Your task to perform on an android device: Go to Maps Image 0: 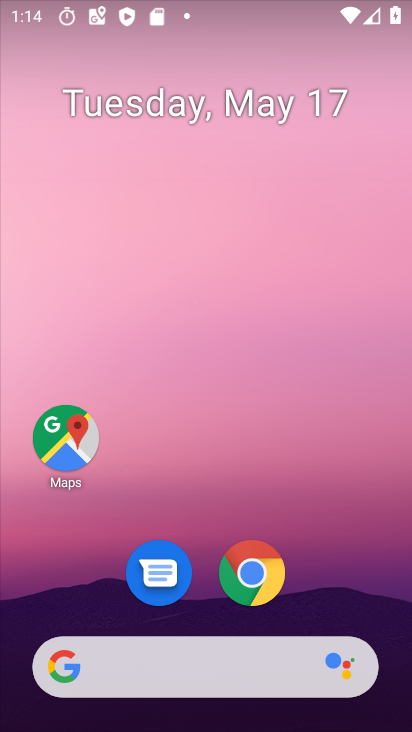
Step 0: click (41, 445)
Your task to perform on an android device: Go to Maps Image 1: 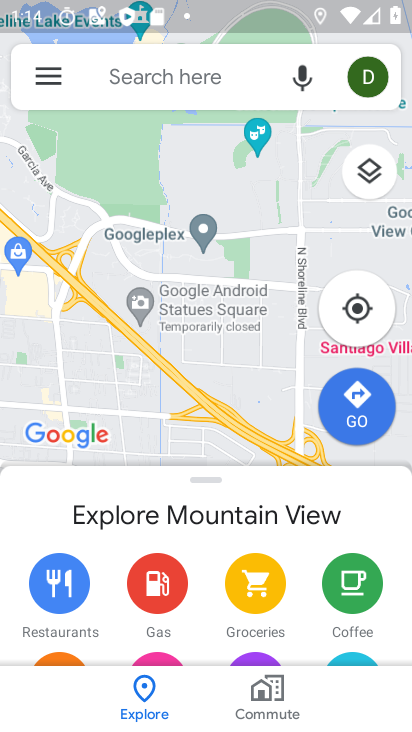
Step 1: task complete